Your task to perform on an android device: refresh tabs in the chrome app Image 0: 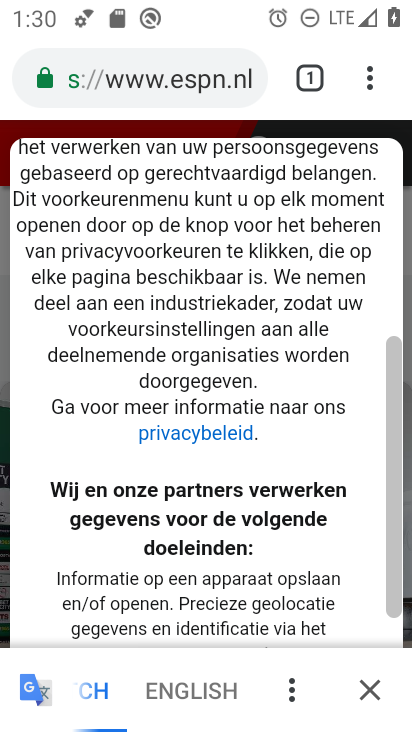
Step 0: press home button
Your task to perform on an android device: refresh tabs in the chrome app Image 1: 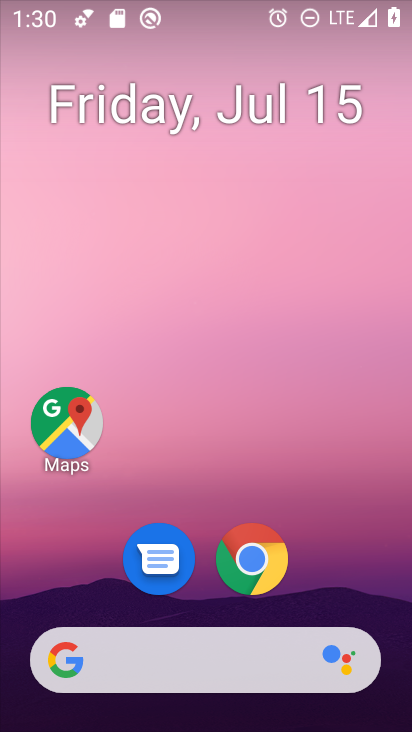
Step 1: drag from (359, 582) to (361, 86)
Your task to perform on an android device: refresh tabs in the chrome app Image 2: 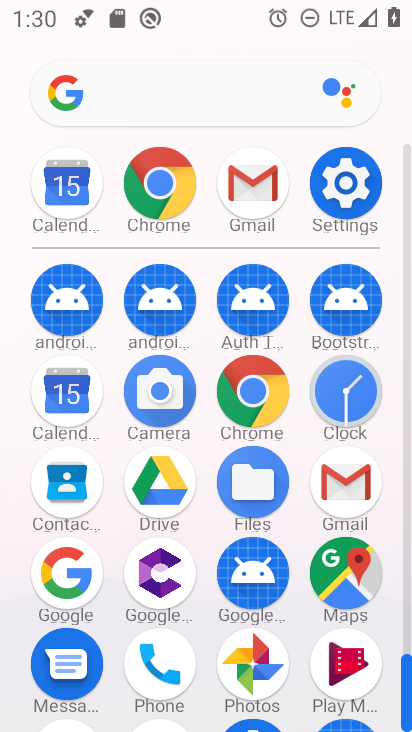
Step 2: click (254, 383)
Your task to perform on an android device: refresh tabs in the chrome app Image 3: 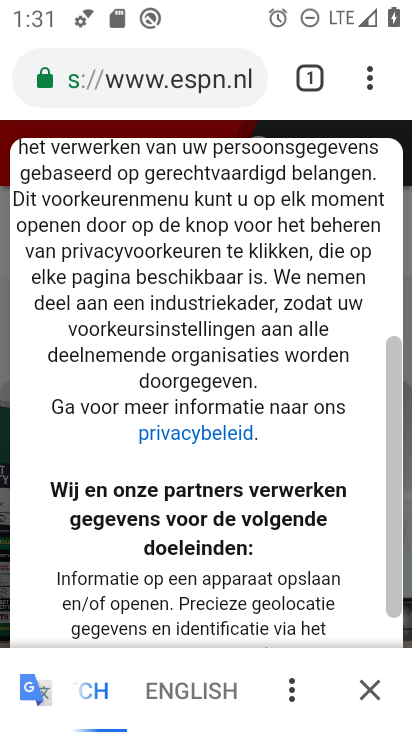
Step 3: click (368, 82)
Your task to perform on an android device: refresh tabs in the chrome app Image 4: 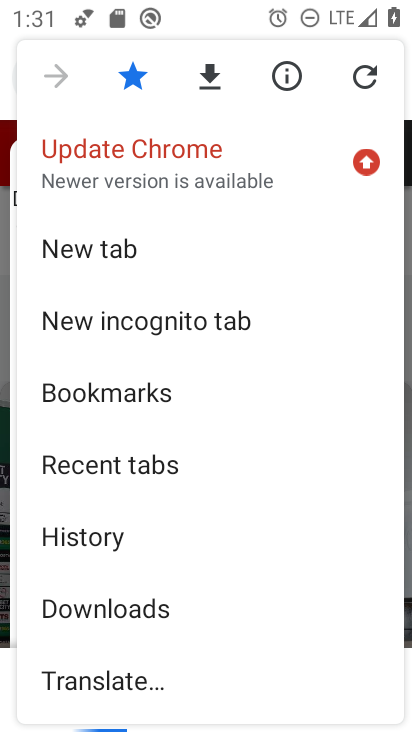
Step 4: click (368, 82)
Your task to perform on an android device: refresh tabs in the chrome app Image 5: 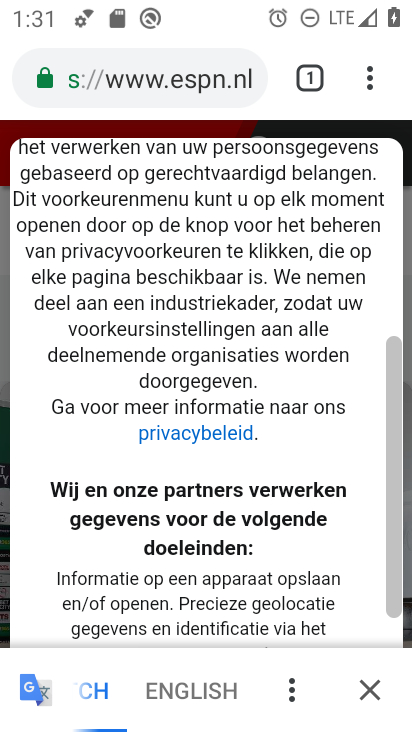
Step 5: task complete